Your task to perform on an android device: toggle airplane mode Image 0: 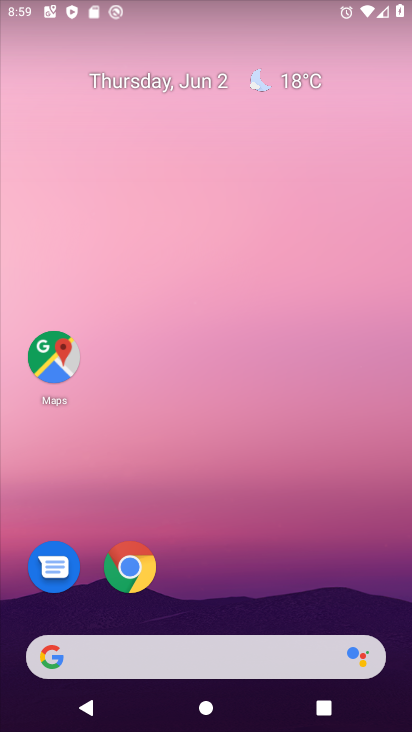
Step 0: drag from (200, 587) to (309, 0)
Your task to perform on an android device: toggle airplane mode Image 1: 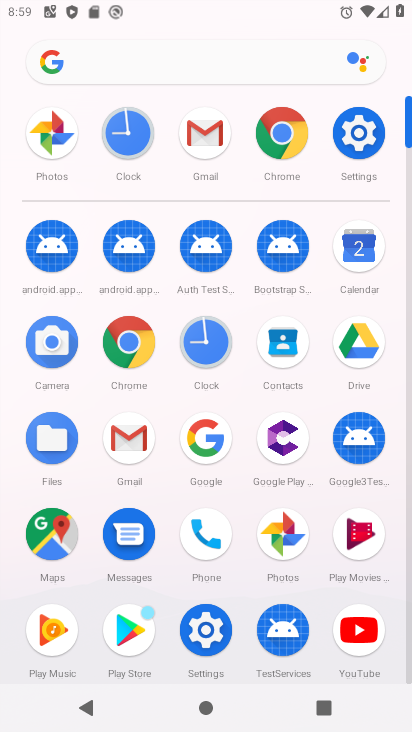
Step 1: click (209, 640)
Your task to perform on an android device: toggle airplane mode Image 2: 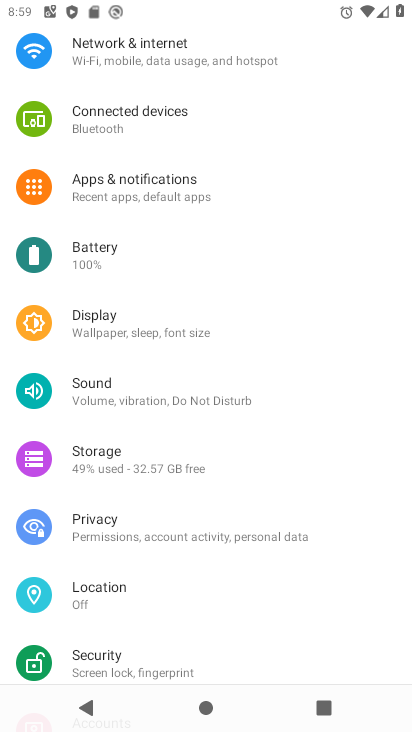
Step 2: drag from (154, 356) to (110, 495)
Your task to perform on an android device: toggle airplane mode Image 3: 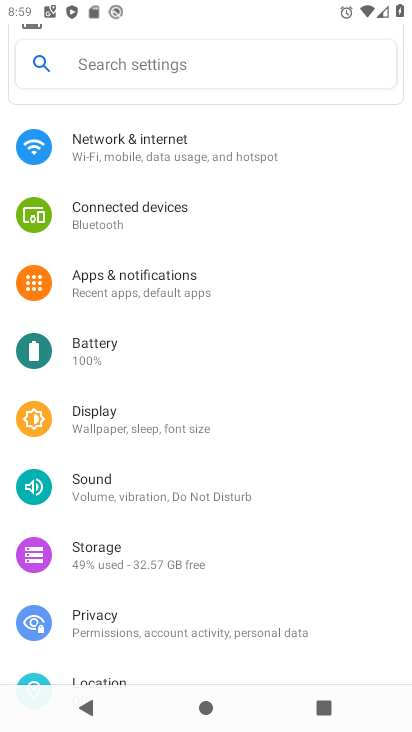
Step 3: click (181, 169)
Your task to perform on an android device: toggle airplane mode Image 4: 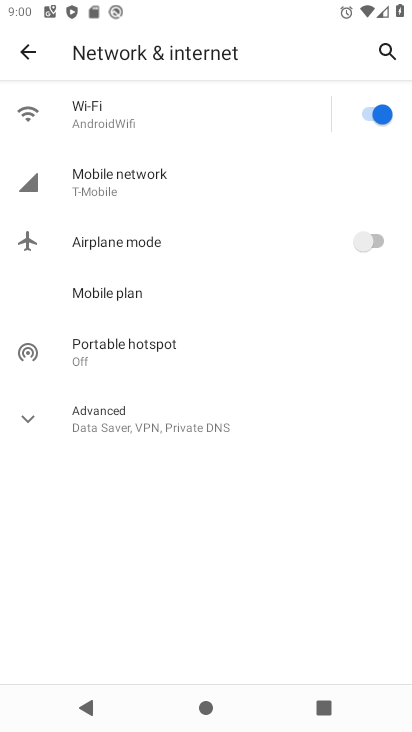
Step 4: click (360, 249)
Your task to perform on an android device: toggle airplane mode Image 5: 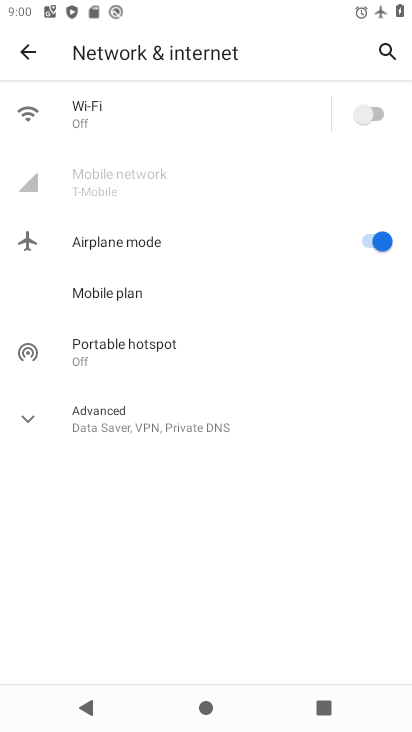
Step 5: task complete